Your task to perform on an android device: Open display settings Image 0: 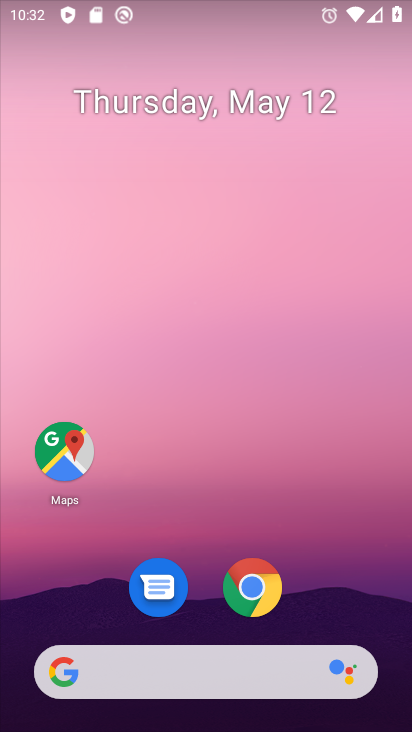
Step 0: drag from (356, 530) to (308, 0)
Your task to perform on an android device: Open display settings Image 1: 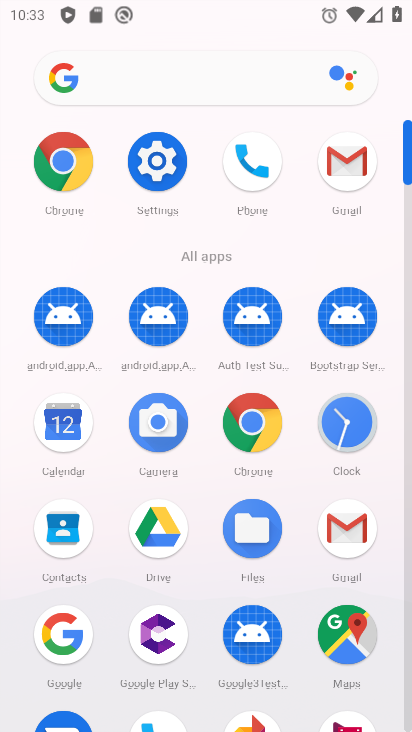
Step 1: click (142, 152)
Your task to perform on an android device: Open display settings Image 2: 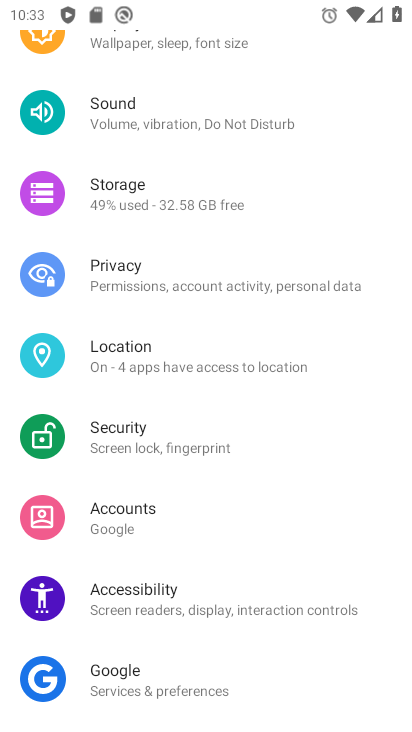
Step 2: drag from (205, 238) to (194, 624)
Your task to perform on an android device: Open display settings Image 3: 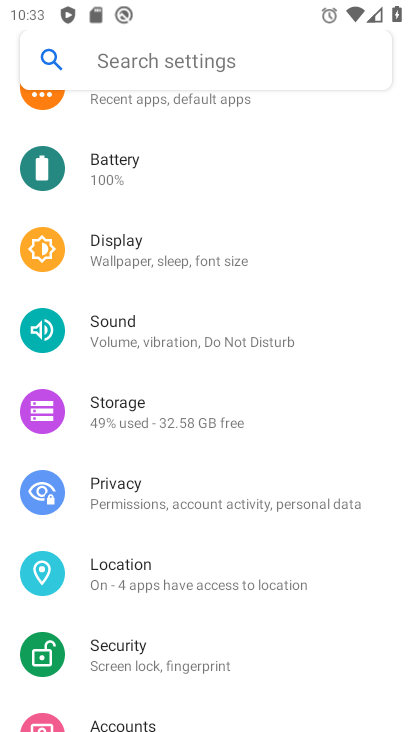
Step 3: drag from (240, 206) to (213, 599)
Your task to perform on an android device: Open display settings Image 4: 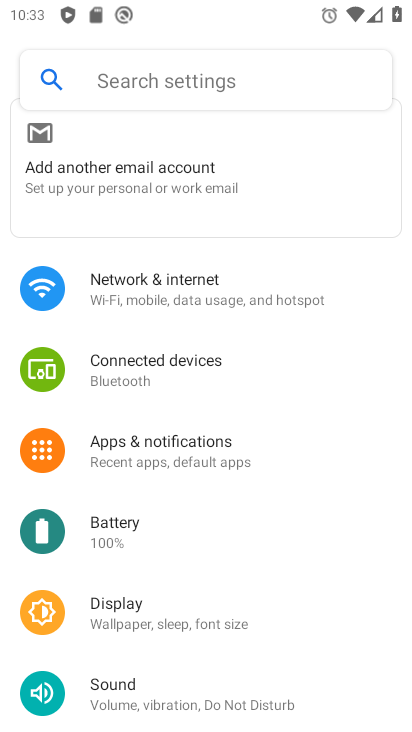
Step 4: click (183, 617)
Your task to perform on an android device: Open display settings Image 5: 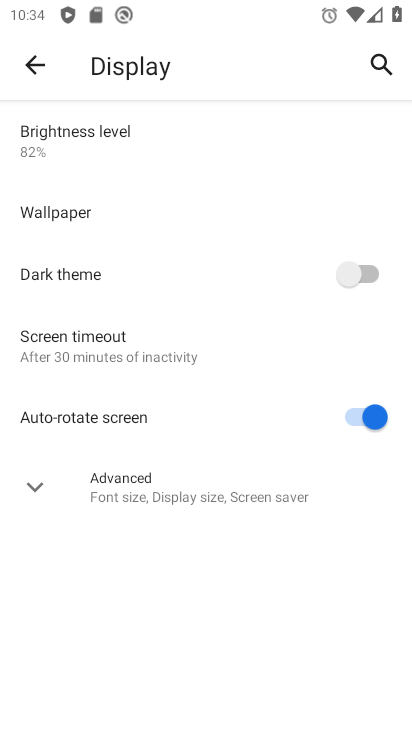
Step 5: task complete